Your task to perform on an android device: clear history in the chrome app Image 0: 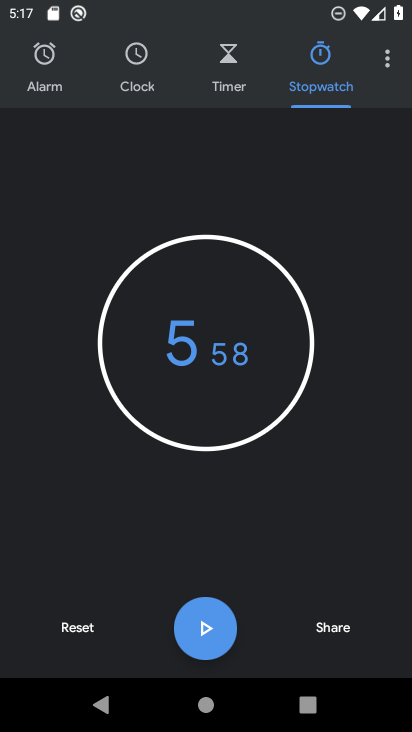
Step 0: press home button
Your task to perform on an android device: clear history in the chrome app Image 1: 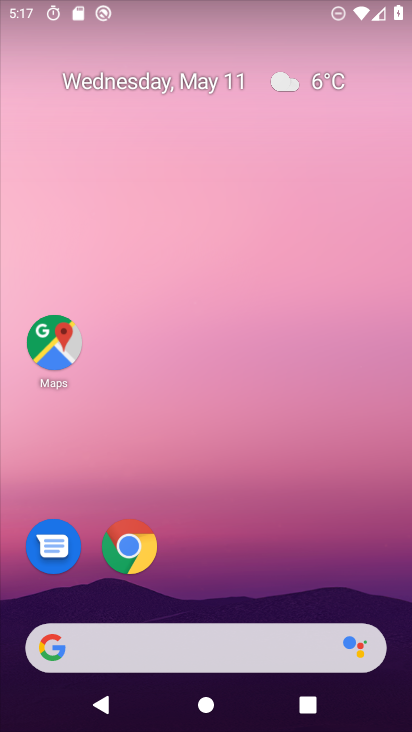
Step 1: click (186, 623)
Your task to perform on an android device: clear history in the chrome app Image 2: 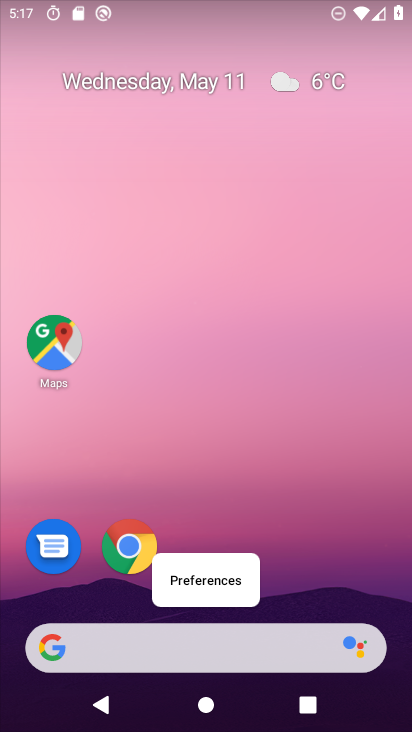
Step 2: click (133, 551)
Your task to perform on an android device: clear history in the chrome app Image 3: 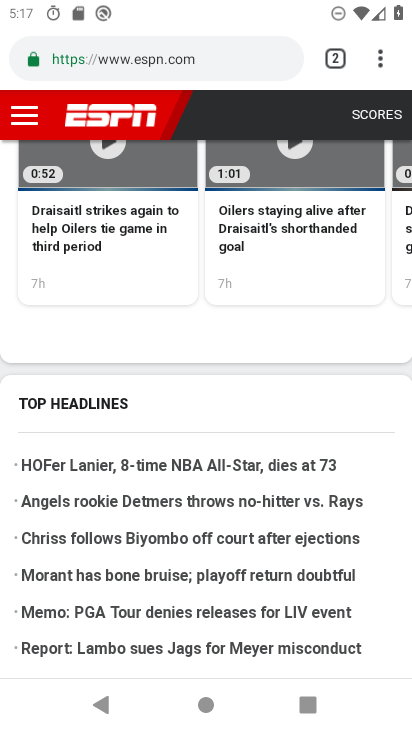
Step 3: drag from (356, 52) to (400, 387)
Your task to perform on an android device: clear history in the chrome app Image 4: 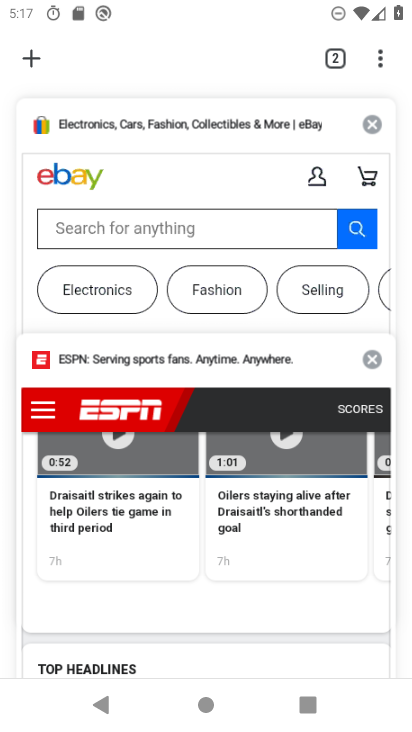
Step 4: click (381, 55)
Your task to perform on an android device: clear history in the chrome app Image 5: 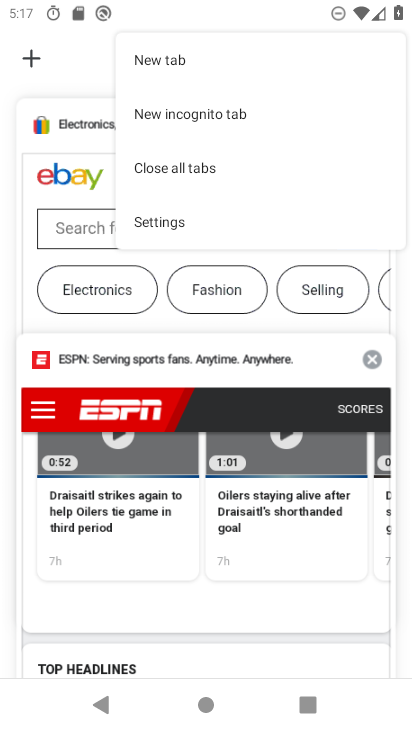
Step 5: click (55, 66)
Your task to perform on an android device: clear history in the chrome app Image 6: 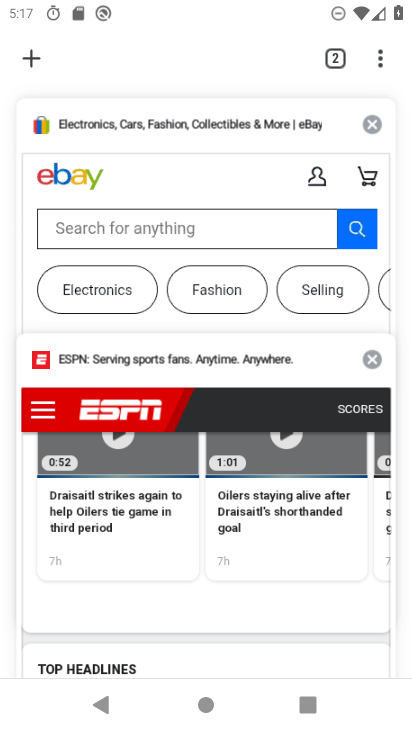
Step 6: click (369, 123)
Your task to perform on an android device: clear history in the chrome app Image 7: 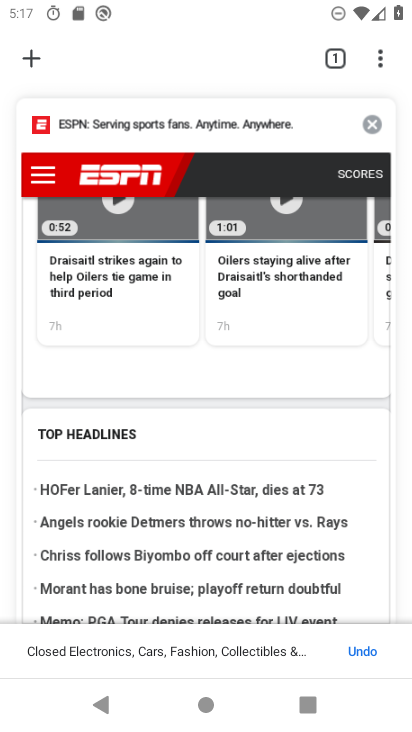
Step 7: click (377, 125)
Your task to perform on an android device: clear history in the chrome app Image 8: 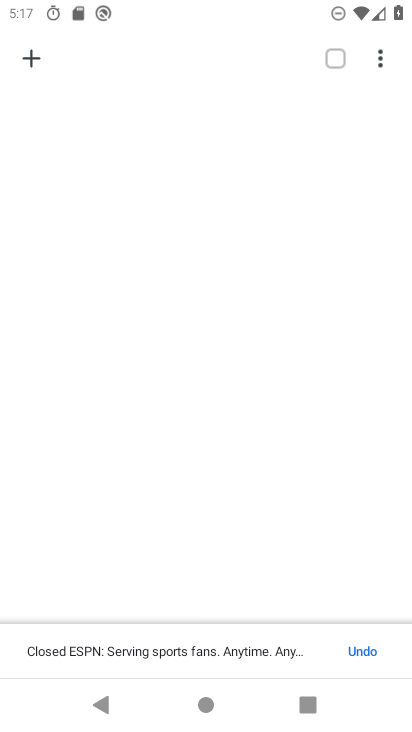
Step 8: click (381, 61)
Your task to perform on an android device: clear history in the chrome app Image 9: 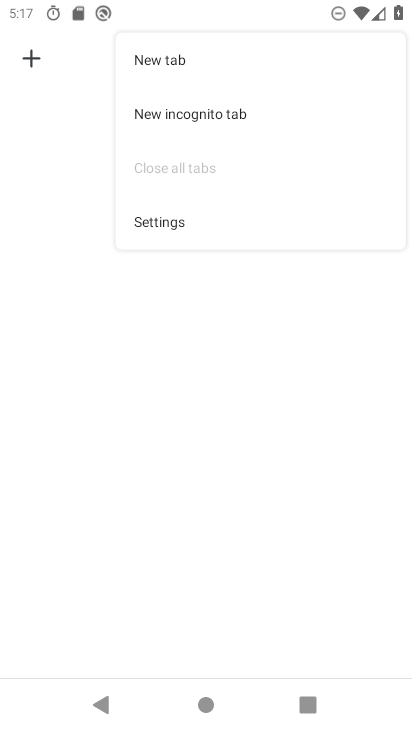
Step 9: click (31, 65)
Your task to perform on an android device: clear history in the chrome app Image 10: 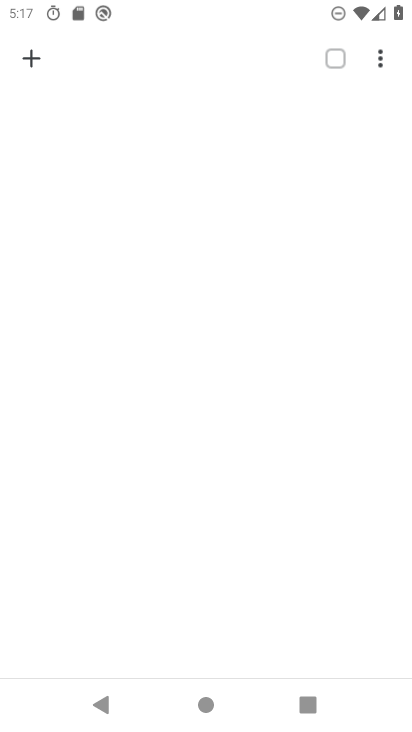
Step 10: click (31, 60)
Your task to perform on an android device: clear history in the chrome app Image 11: 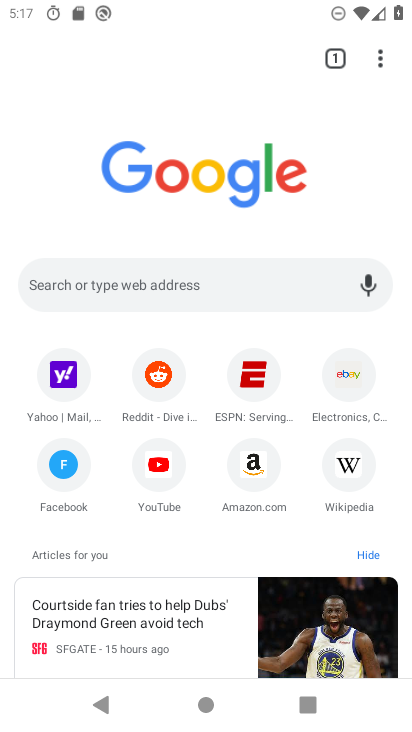
Step 11: click (384, 57)
Your task to perform on an android device: clear history in the chrome app Image 12: 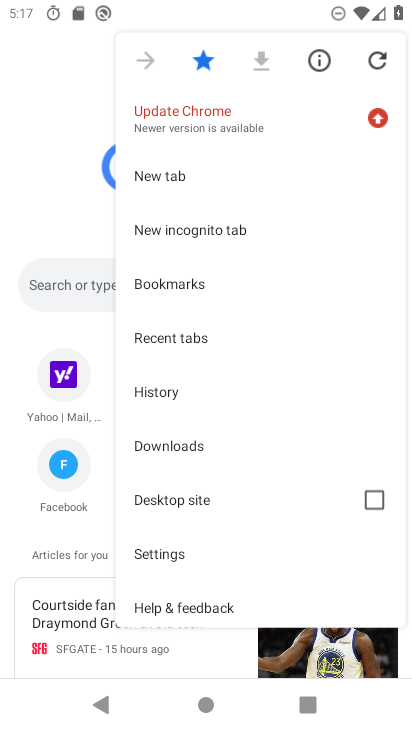
Step 12: click (184, 388)
Your task to perform on an android device: clear history in the chrome app Image 13: 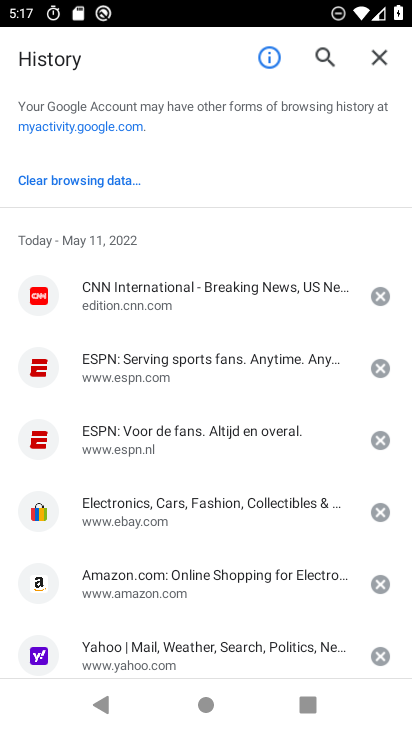
Step 13: click (97, 183)
Your task to perform on an android device: clear history in the chrome app Image 14: 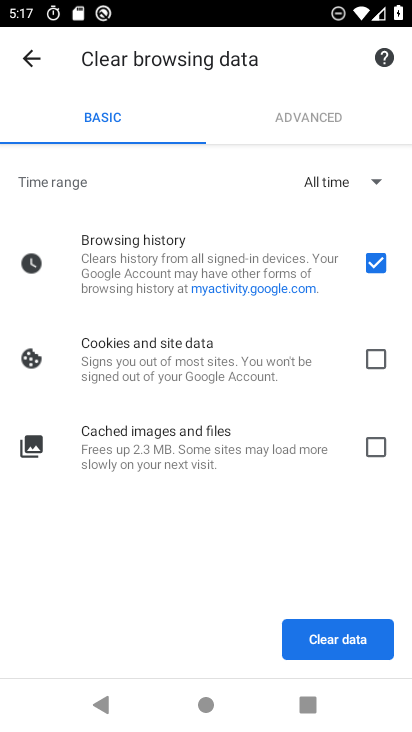
Step 14: click (373, 447)
Your task to perform on an android device: clear history in the chrome app Image 15: 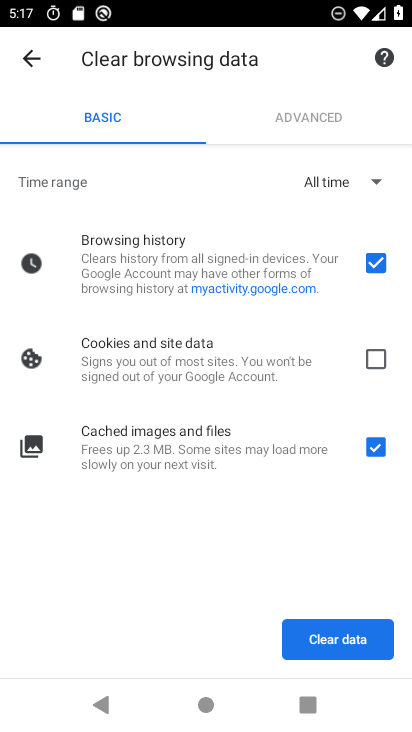
Step 15: click (369, 359)
Your task to perform on an android device: clear history in the chrome app Image 16: 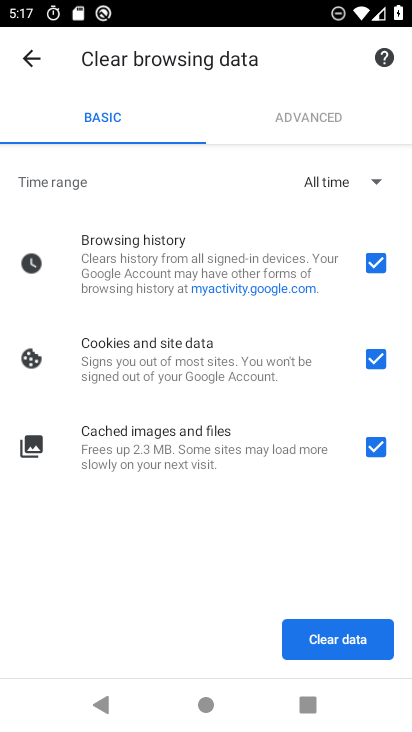
Step 16: click (366, 639)
Your task to perform on an android device: clear history in the chrome app Image 17: 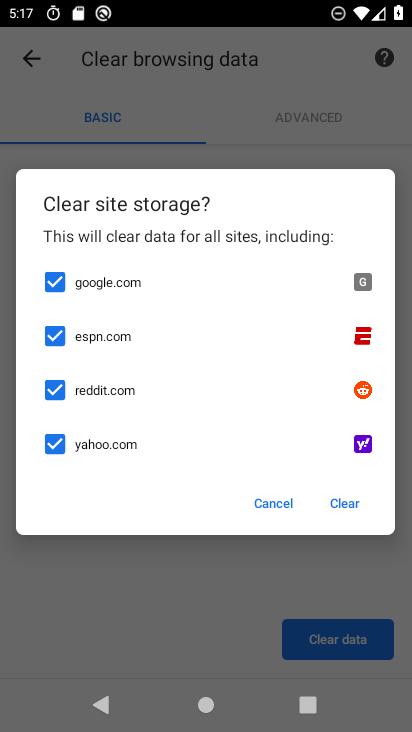
Step 17: click (342, 498)
Your task to perform on an android device: clear history in the chrome app Image 18: 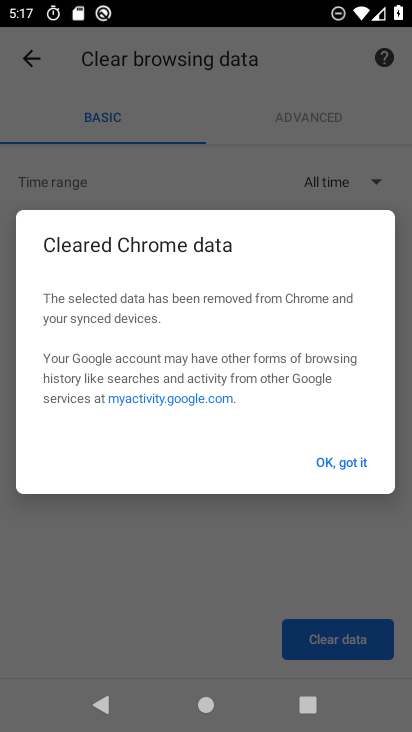
Step 18: click (340, 456)
Your task to perform on an android device: clear history in the chrome app Image 19: 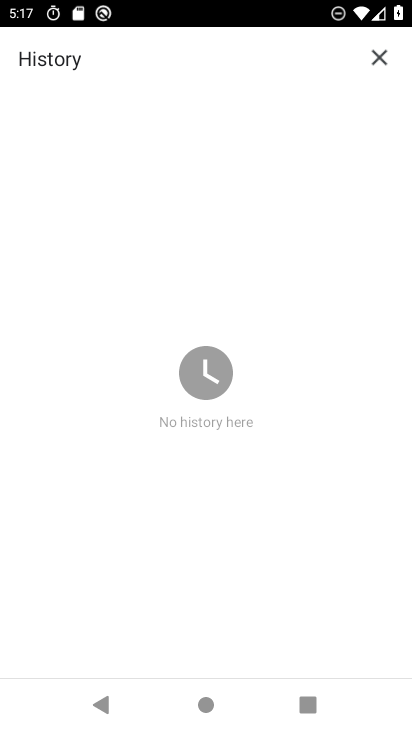
Step 19: task complete